Your task to perform on an android device: Open Youtube and go to "Your channel" Image 0: 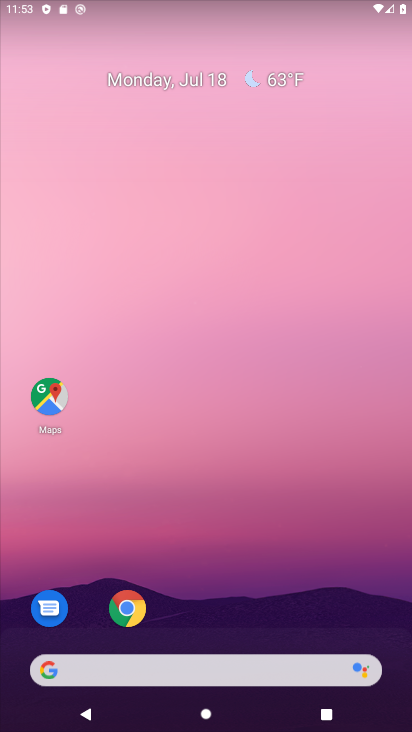
Step 0: drag from (279, 636) to (289, 20)
Your task to perform on an android device: Open Youtube and go to "Your channel" Image 1: 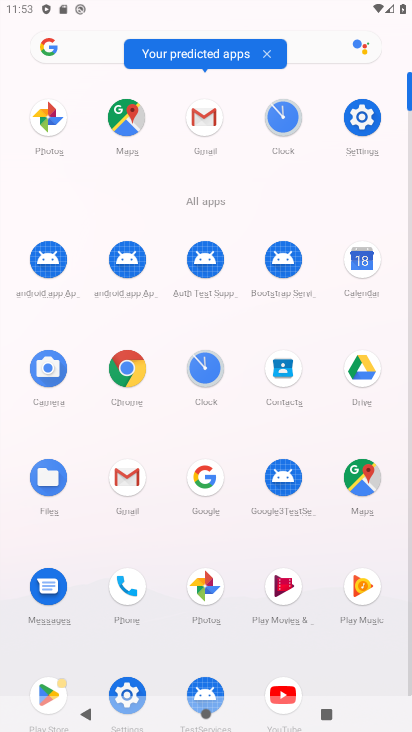
Step 1: click (291, 683)
Your task to perform on an android device: Open Youtube and go to "Your channel" Image 2: 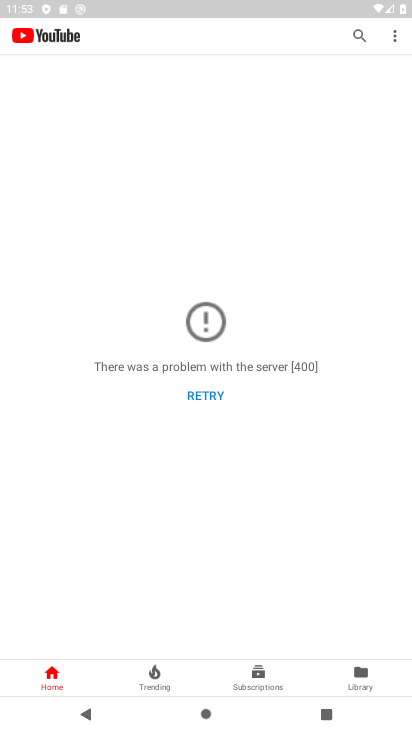
Step 2: click (395, 31)
Your task to perform on an android device: Open Youtube and go to "Your channel" Image 3: 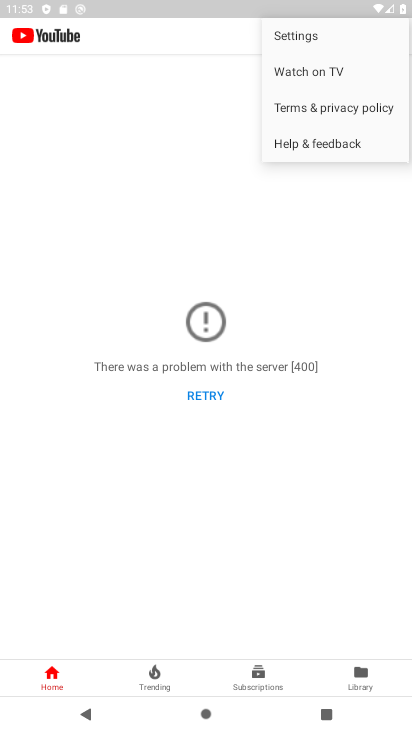
Step 3: task complete